Your task to perform on an android device: toggle improve location accuracy Image 0: 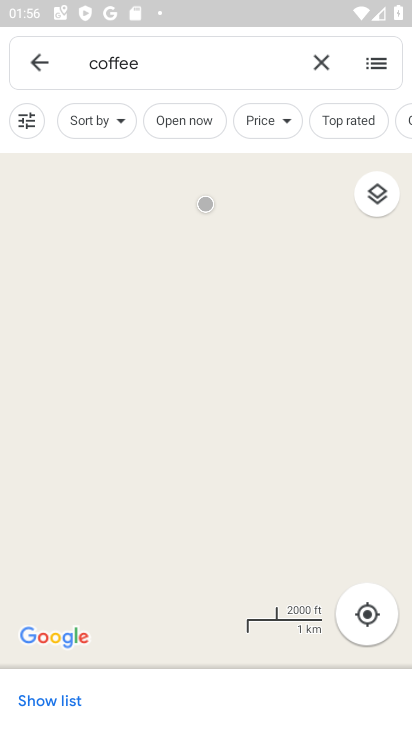
Step 0: press home button
Your task to perform on an android device: toggle improve location accuracy Image 1: 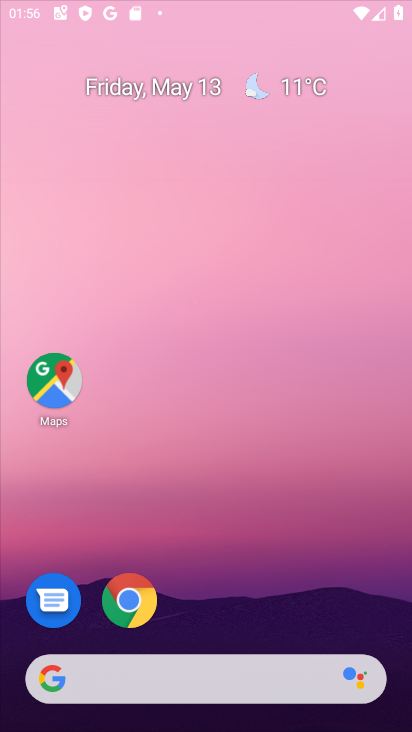
Step 1: drag from (206, 577) to (210, 114)
Your task to perform on an android device: toggle improve location accuracy Image 2: 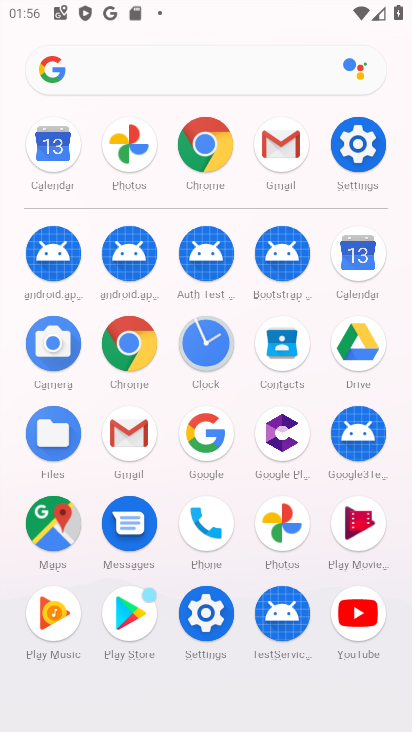
Step 2: click (368, 132)
Your task to perform on an android device: toggle improve location accuracy Image 3: 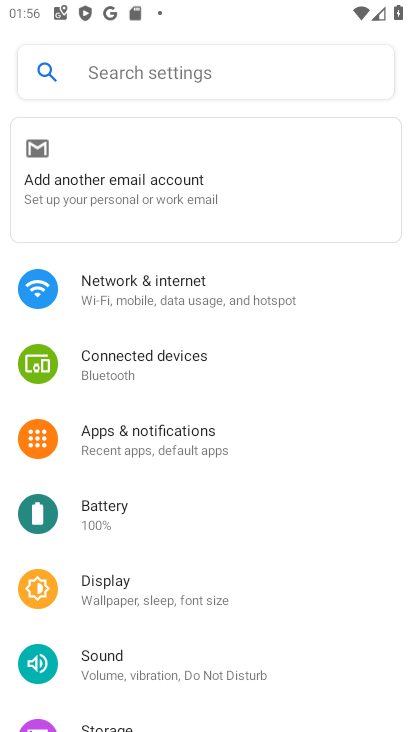
Step 3: drag from (288, 590) to (310, 90)
Your task to perform on an android device: toggle improve location accuracy Image 4: 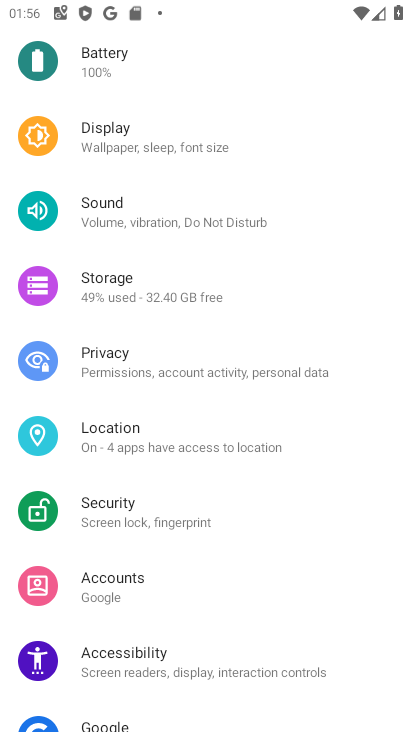
Step 4: drag from (205, 646) to (242, 185)
Your task to perform on an android device: toggle improve location accuracy Image 5: 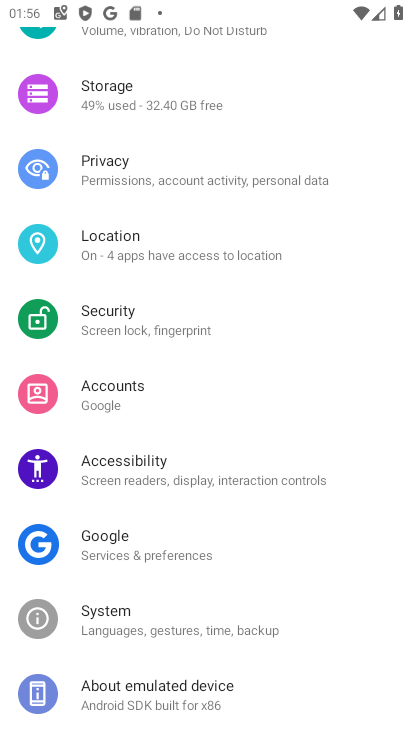
Step 5: drag from (216, 546) to (260, 191)
Your task to perform on an android device: toggle improve location accuracy Image 6: 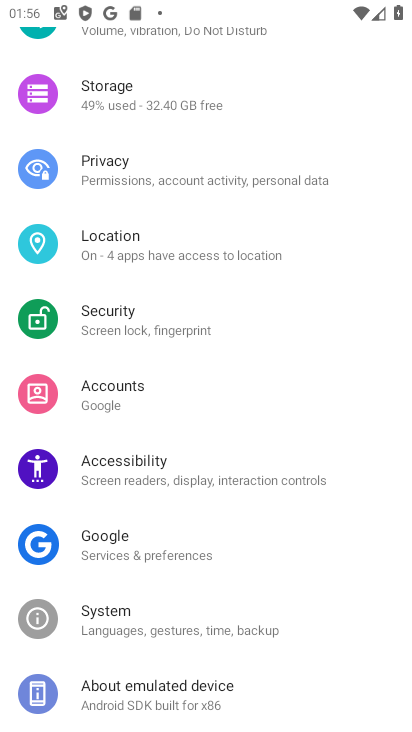
Step 6: click (136, 246)
Your task to perform on an android device: toggle improve location accuracy Image 7: 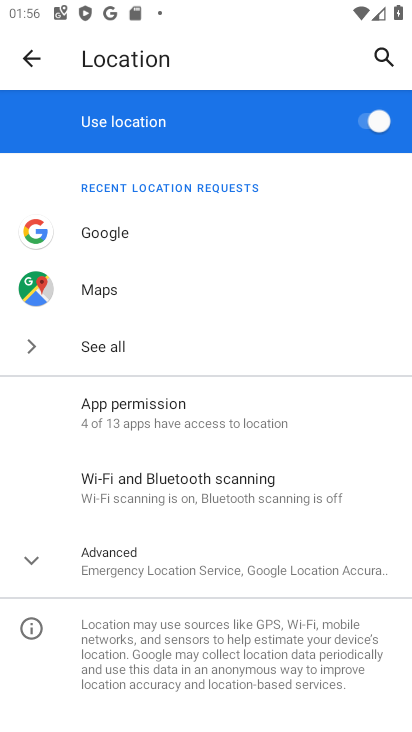
Step 7: click (129, 557)
Your task to perform on an android device: toggle improve location accuracy Image 8: 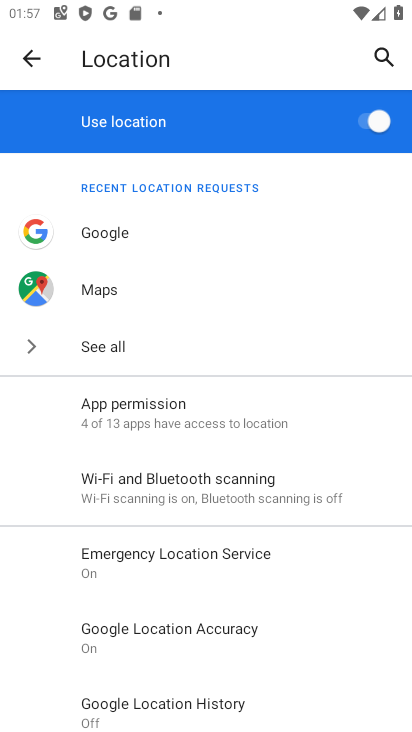
Step 8: drag from (207, 669) to (265, 340)
Your task to perform on an android device: toggle improve location accuracy Image 9: 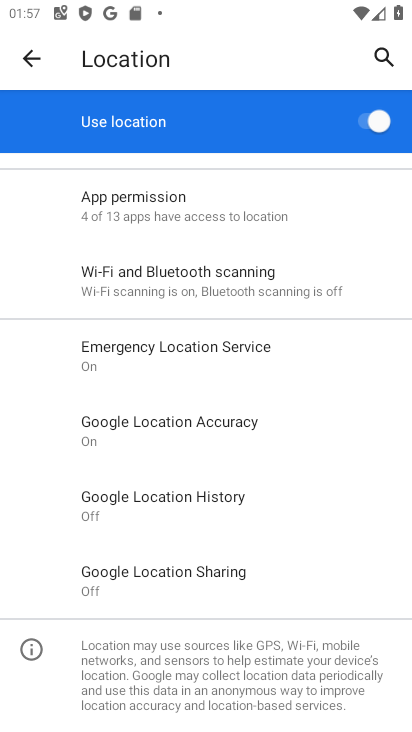
Step 9: click (171, 440)
Your task to perform on an android device: toggle improve location accuracy Image 10: 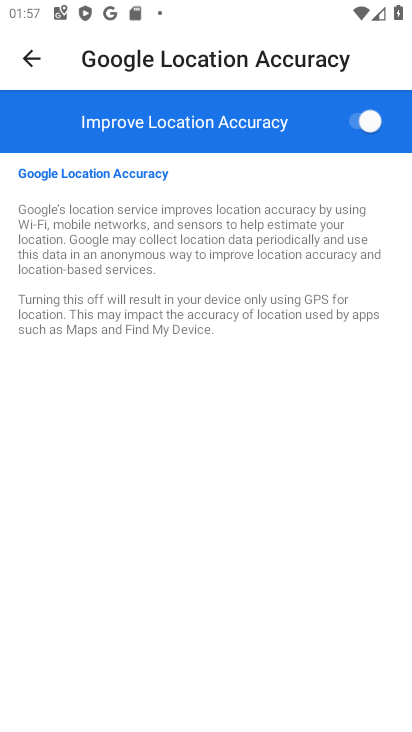
Step 10: click (352, 105)
Your task to perform on an android device: toggle improve location accuracy Image 11: 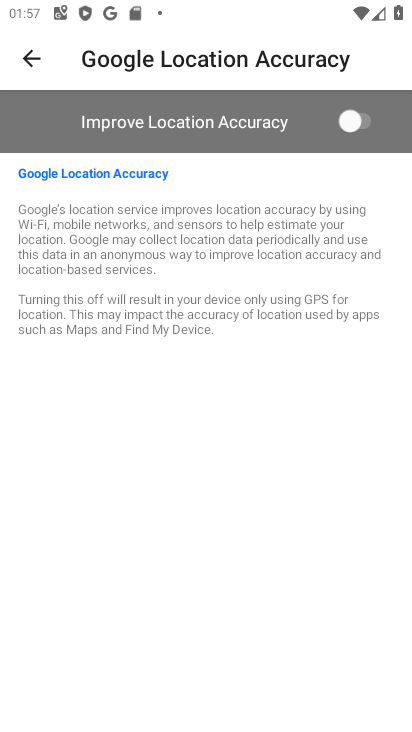
Step 11: task complete